Your task to perform on an android device: Go to Google Image 0: 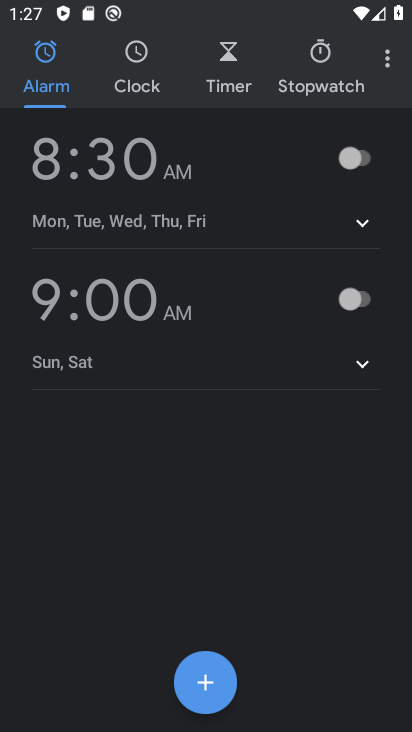
Step 0: press home button
Your task to perform on an android device: Go to Google Image 1: 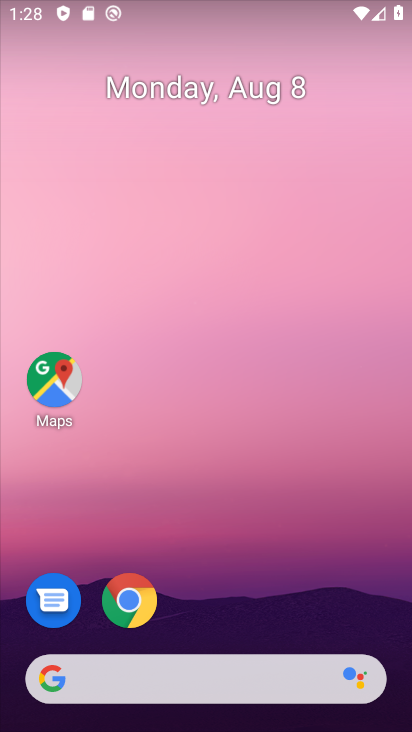
Step 1: drag from (248, 611) to (344, 12)
Your task to perform on an android device: Go to Google Image 2: 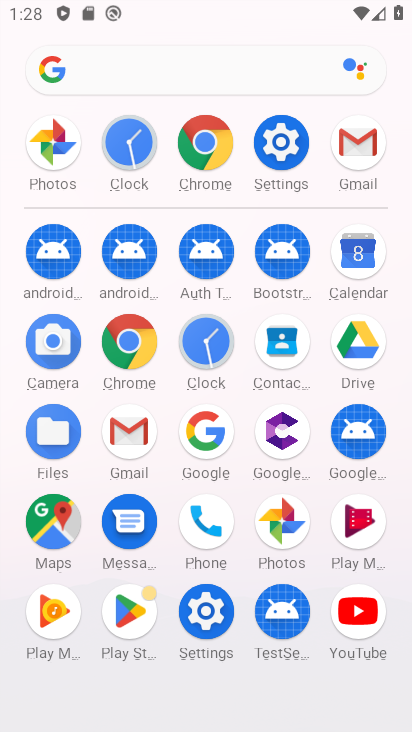
Step 2: click (201, 167)
Your task to perform on an android device: Go to Google Image 3: 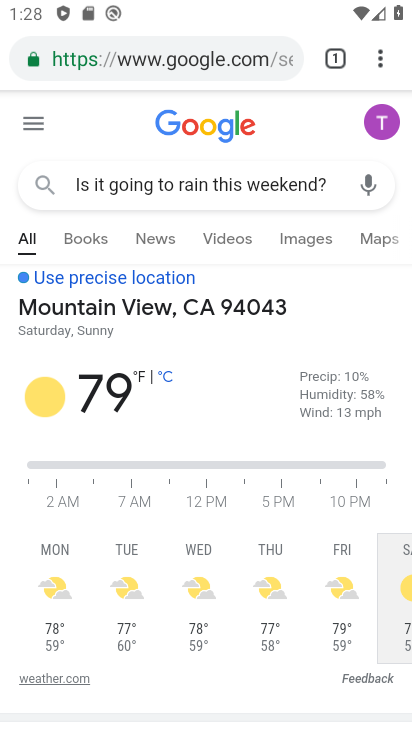
Step 3: click (234, 49)
Your task to perform on an android device: Go to Google Image 4: 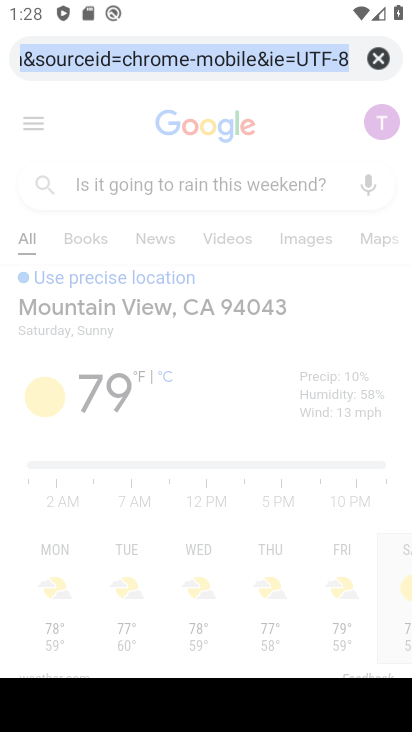
Step 4: type "Google"
Your task to perform on an android device: Go to Google Image 5: 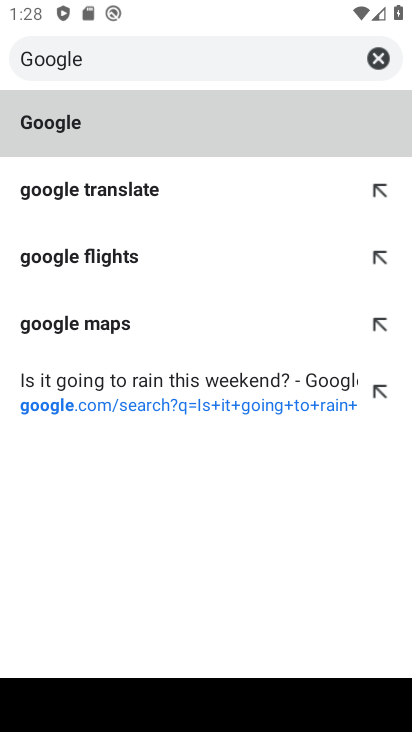
Step 5: click (126, 113)
Your task to perform on an android device: Go to Google Image 6: 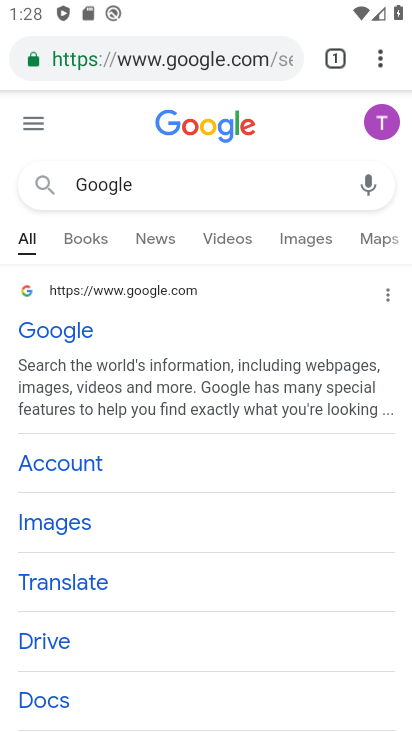
Step 6: task complete